Your task to perform on an android device: Check the weather Image 0: 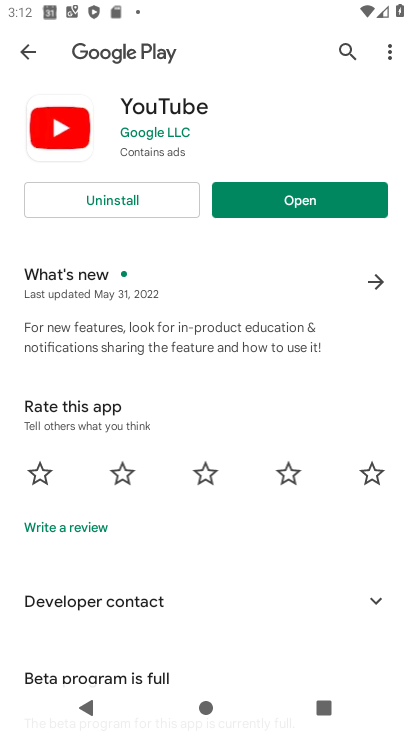
Step 0: press home button
Your task to perform on an android device: Check the weather Image 1: 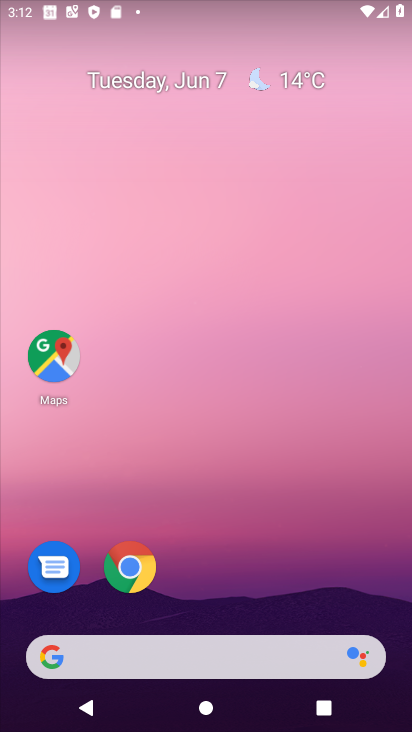
Step 1: drag from (199, 598) to (199, 206)
Your task to perform on an android device: Check the weather Image 2: 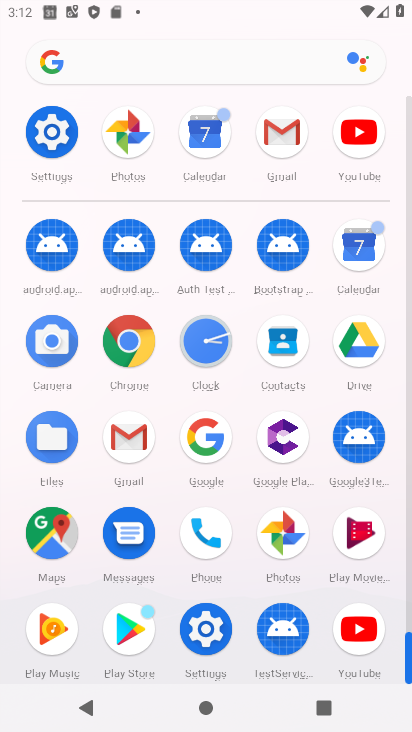
Step 2: click (201, 439)
Your task to perform on an android device: Check the weather Image 3: 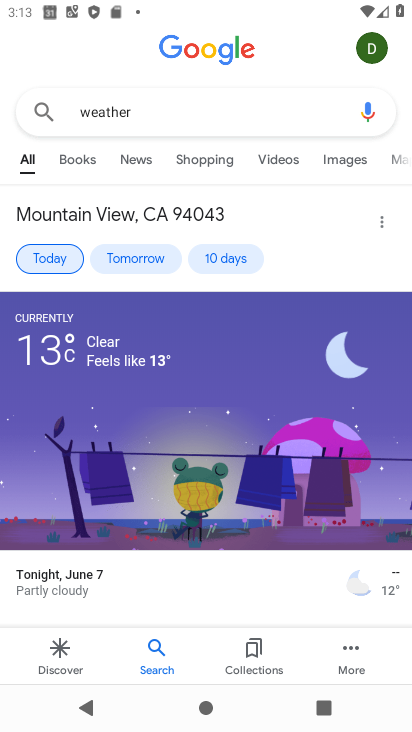
Step 3: task complete